Your task to perform on an android device: Open internet settings Image 0: 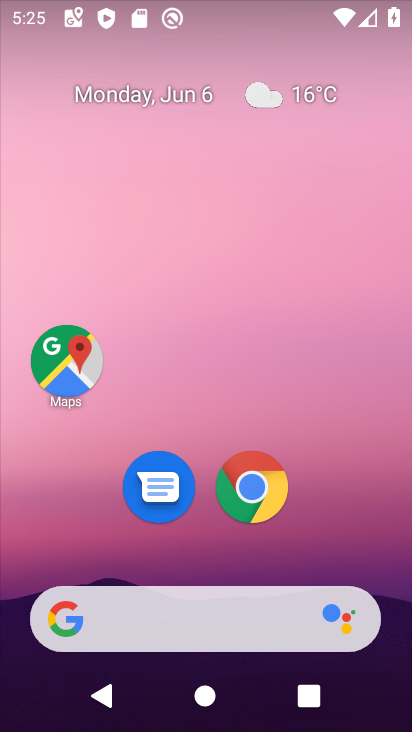
Step 0: drag from (224, 436) to (228, 1)
Your task to perform on an android device: Open internet settings Image 1: 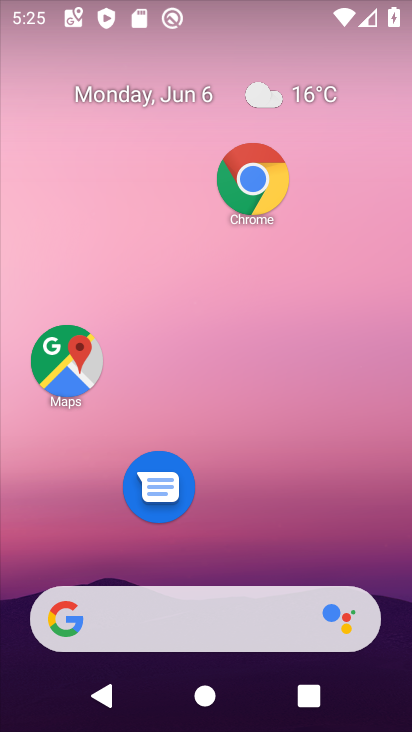
Step 1: drag from (288, 533) to (334, 23)
Your task to perform on an android device: Open internet settings Image 2: 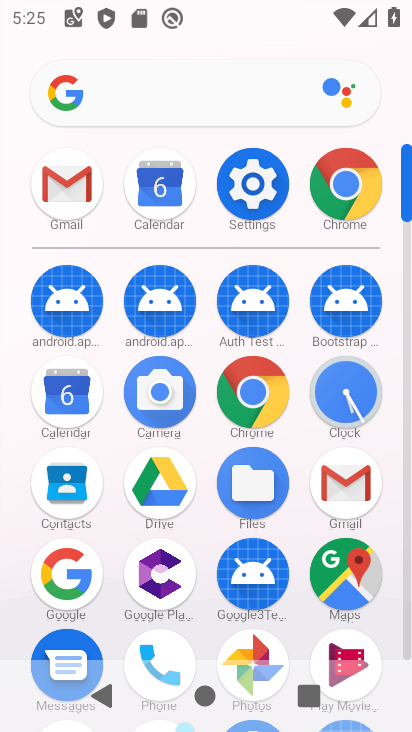
Step 2: click (259, 186)
Your task to perform on an android device: Open internet settings Image 3: 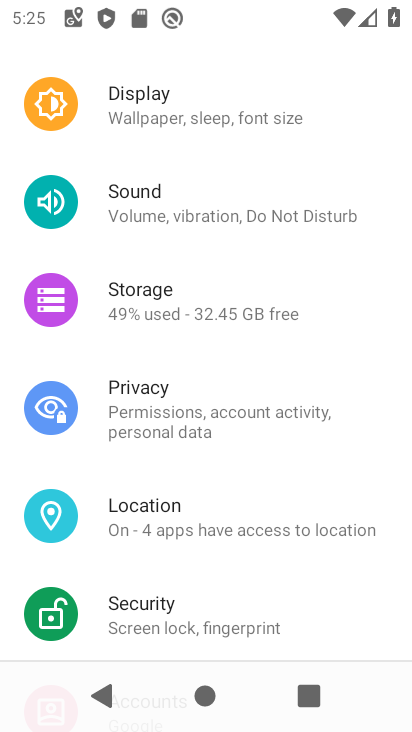
Step 3: drag from (250, 190) to (212, 566)
Your task to perform on an android device: Open internet settings Image 4: 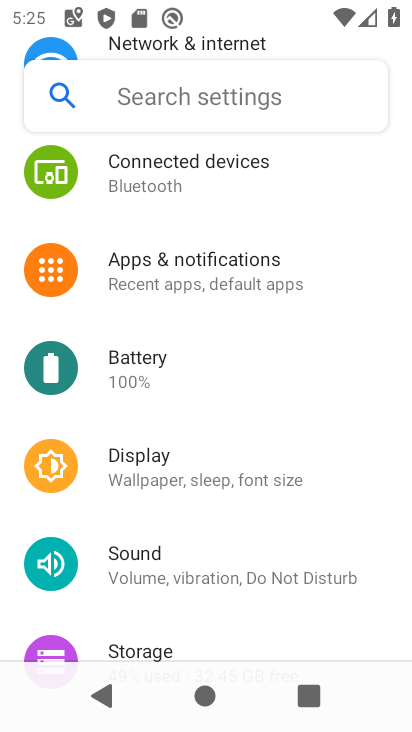
Step 4: drag from (227, 224) to (233, 527)
Your task to perform on an android device: Open internet settings Image 5: 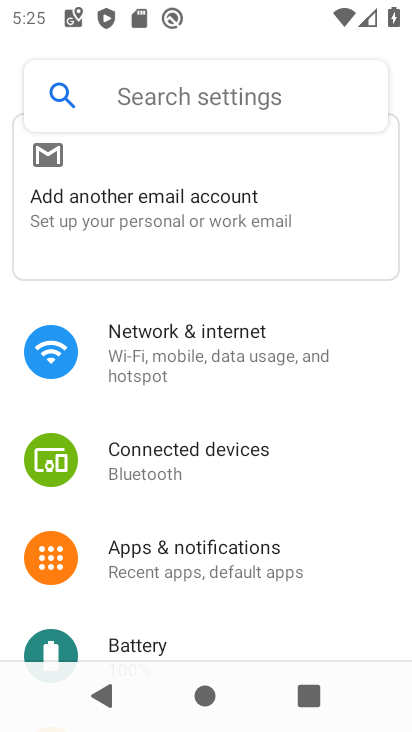
Step 5: click (242, 367)
Your task to perform on an android device: Open internet settings Image 6: 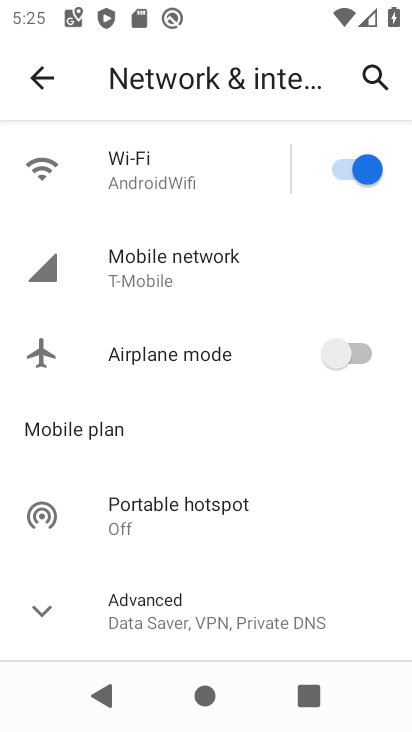
Step 6: task complete